Your task to perform on an android device: Open calendar and show me the third week of next month Image 0: 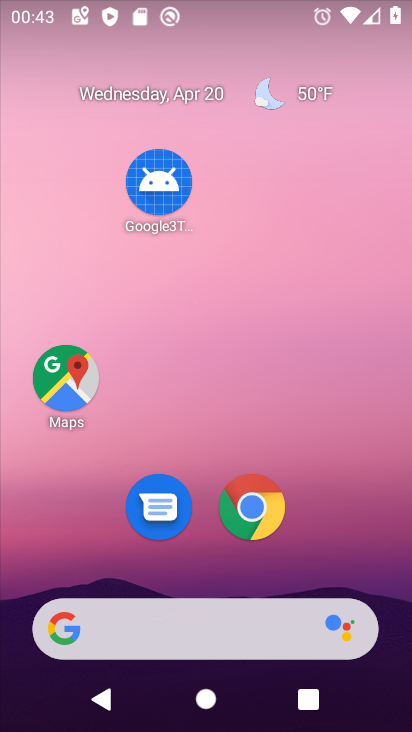
Step 0: drag from (211, 534) to (165, 5)
Your task to perform on an android device: Open calendar and show me the third week of next month Image 1: 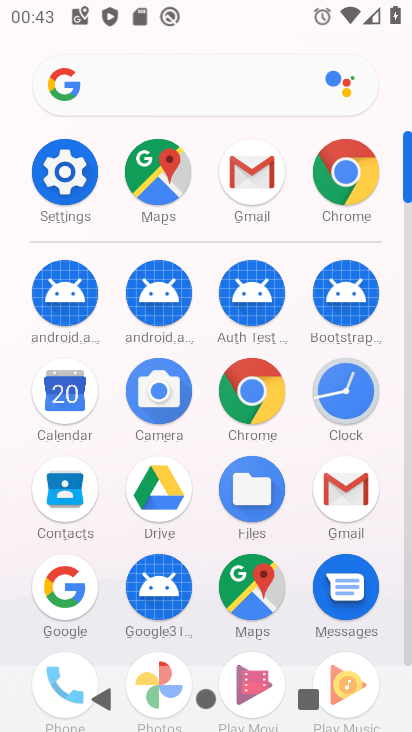
Step 1: click (58, 388)
Your task to perform on an android device: Open calendar and show me the third week of next month Image 2: 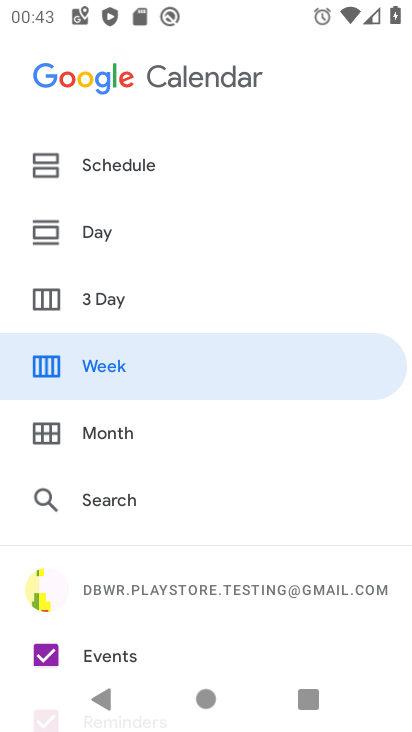
Step 2: click (112, 368)
Your task to perform on an android device: Open calendar and show me the third week of next month Image 3: 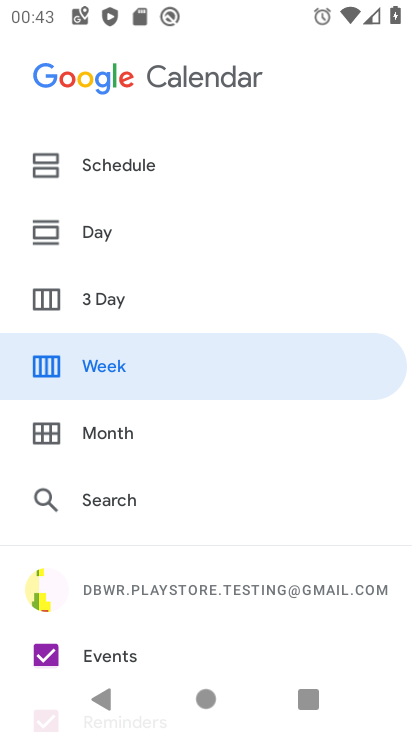
Step 3: click (240, 362)
Your task to perform on an android device: Open calendar and show me the third week of next month Image 4: 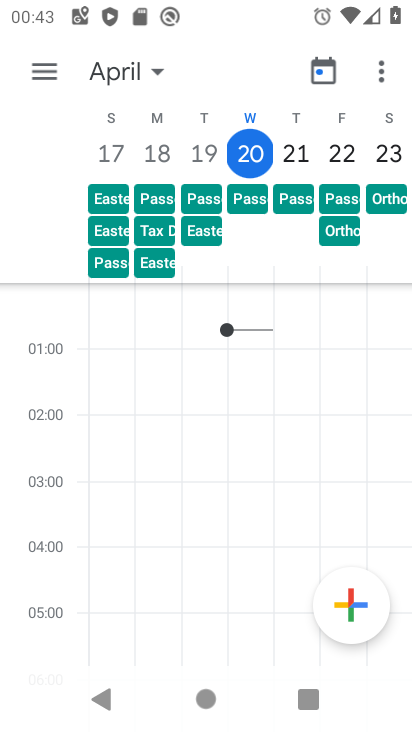
Step 4: click (156, 71)
Your task to perform on an android device: Open calendar and show me the third week of next month Image 5: 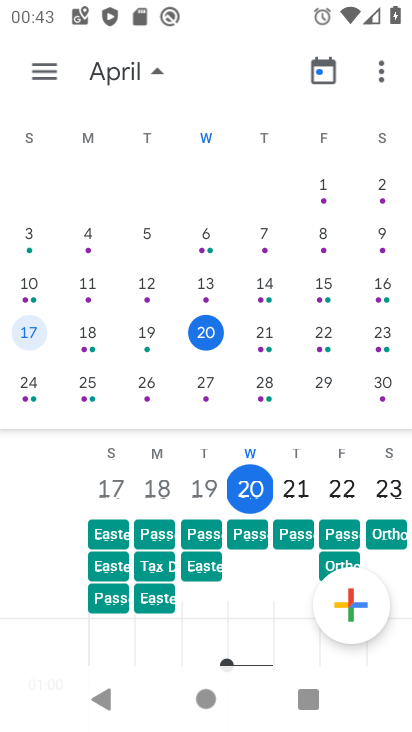
Step 5: drag from (368, 319) to (8, 303)
Your task to perform on an android device: Open calendar and show me the third week of next month Image 6: 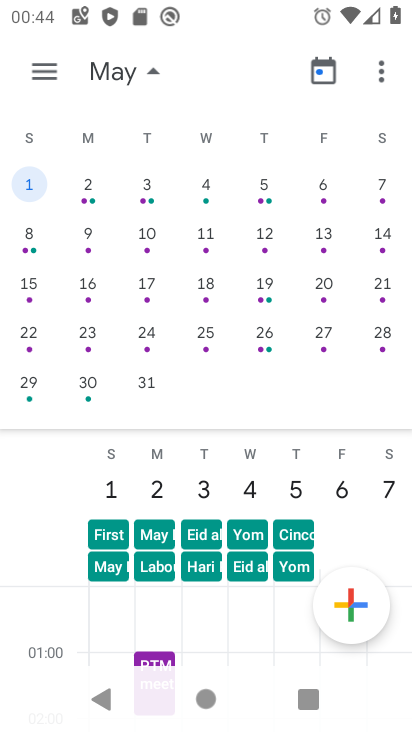
Step 6: click (153, 280)
Your task to perform on an android device: Open calendar and show me the third week of next month Image 7: 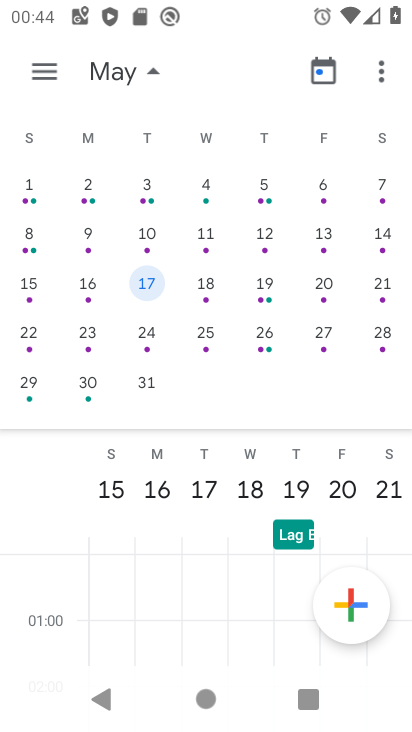
Step 7: task complete